Your task to perform on an android device: Open calendar and show me the third week of next month Image 0: 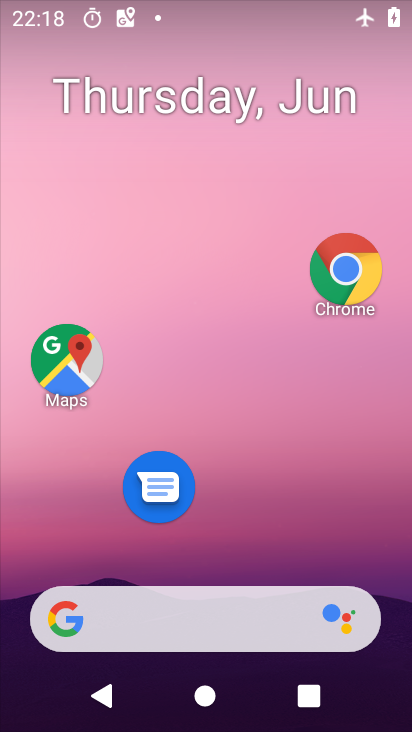
Step 0: drag from (206, 580) to (278, 61)
Your task to perform on an android device: Open calendar and show me the third week of next month Image 1: 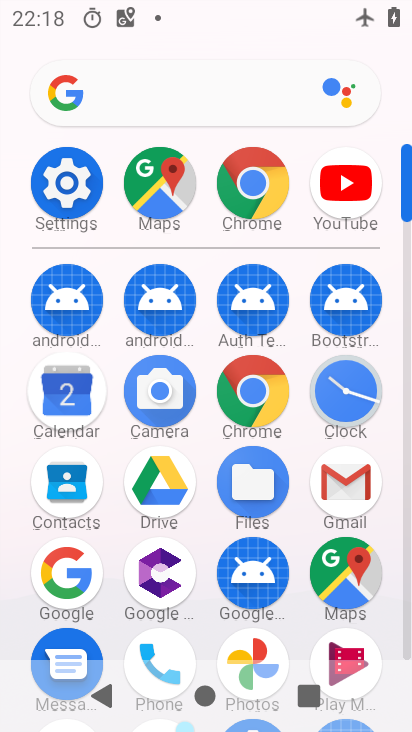
Step 1: click (61, 399)
Your task to perform on an android device: Open calendar and show me the third week of next month Image 2: 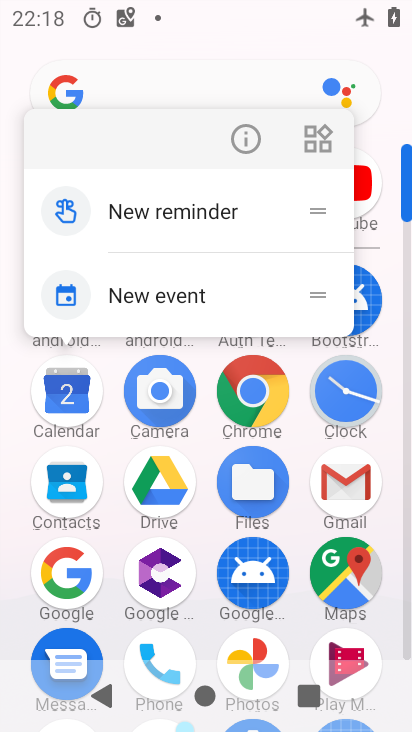
Step 2: click (262, 136)
Your task to perform on an android device: Open calendar and show me the third week of next month Image 3: 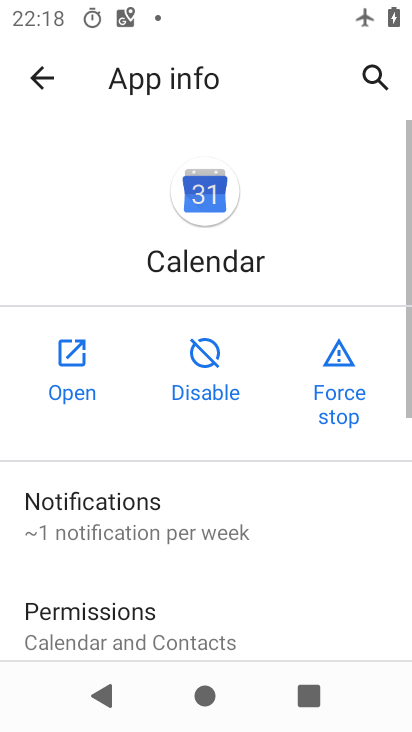
Step 3: click (79, 375)
Your task to perform on an android device: Open calendar and show me the third week of next month Image 4: 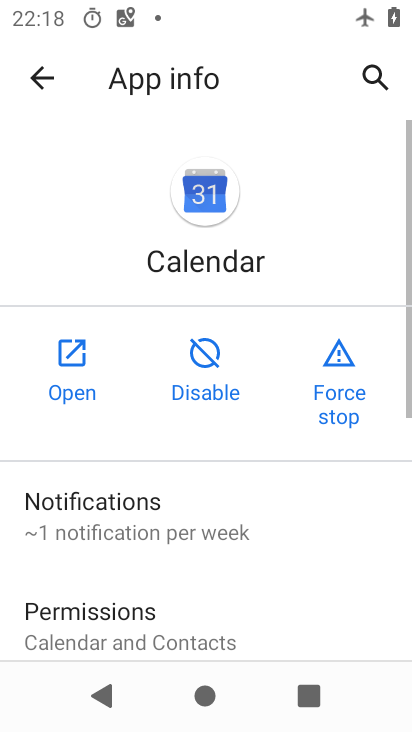
Step 4: click (79, 375)
Your task to perform on an android device: Open calendar and show me the third week of next month Image 5: 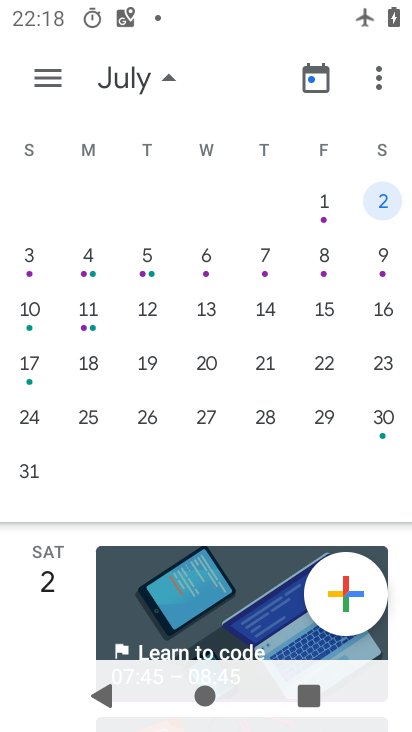
Step 5: click (161, 81)
Your task to perform on an android device: Open calendar and show me the third week of next month Image 6: 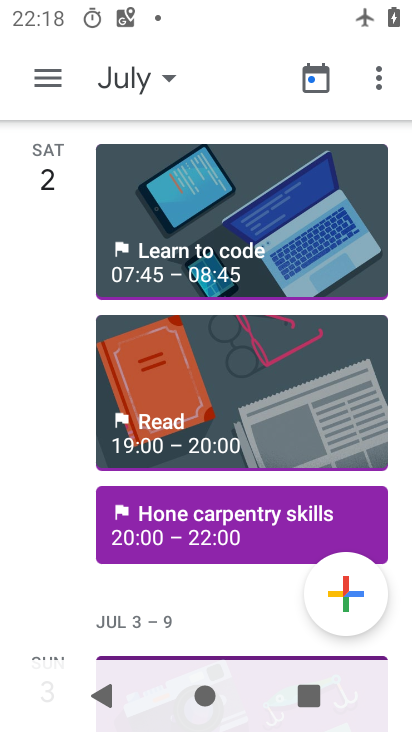
Step 6: click (166, 55)
Your task to perform on an android device: Open calendar and show me the third week of next month Image 7: 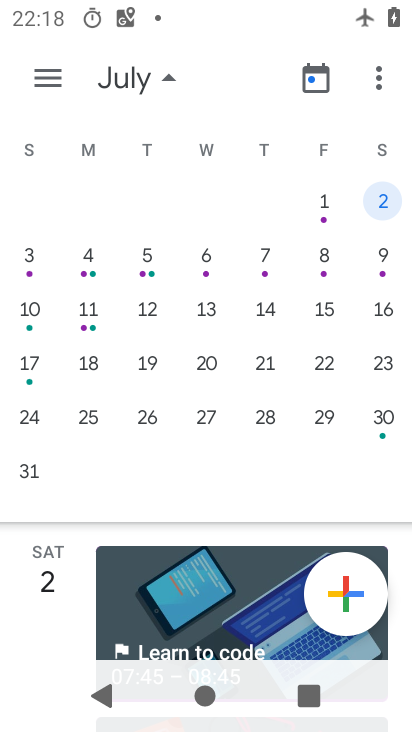
Step 7: drag from (31, 270) to (411, 252)
Your task to perform on an android device: Open calendar and show me the third week of next month Image 8: 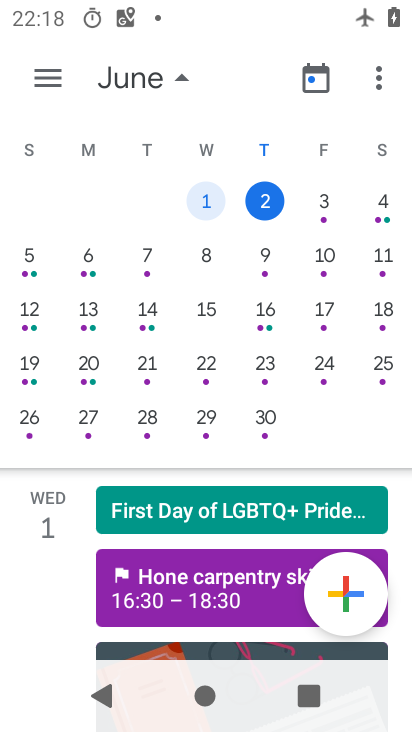
Step 8: click (264, 257)
Your task to perform on an android device: Open calendar and show me the third week of next month Image 9: 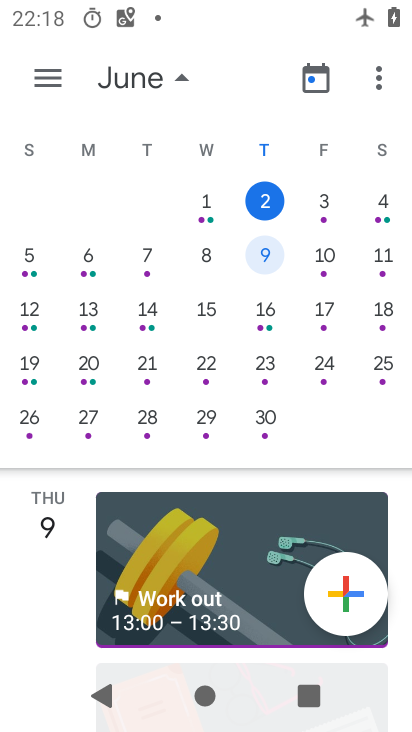
Step 9: click (275, 323)
Your task to perform on an android device: Open calendar and show me the third week of next month Image 10: 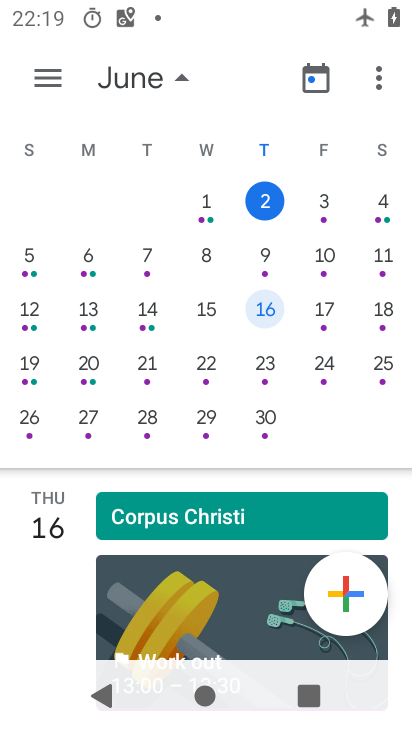
Step 10: task complete